Your task to perform on an android device: show emergency info Image 0: 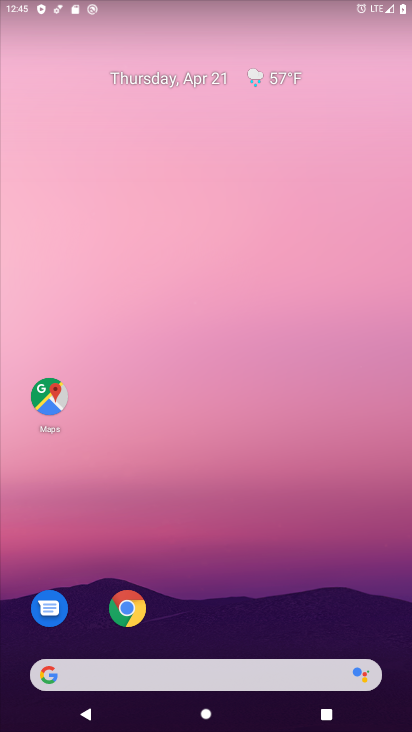
Step 0: drag from (226, 631) to (232, 211)
Your task to perform on an android device: show emergency info Image 1: 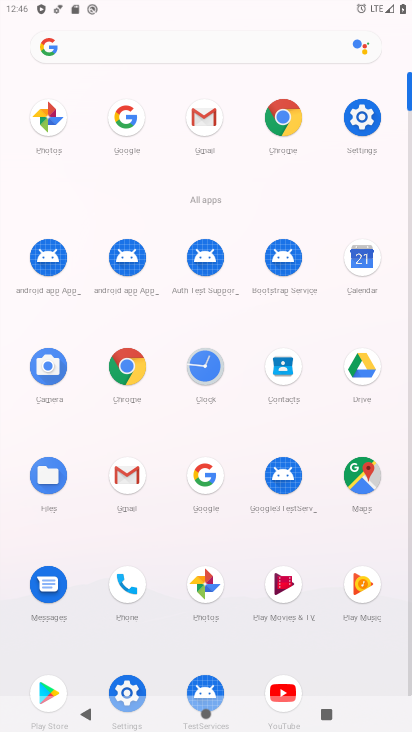
Step 1: click (367, 118)
Your task to perform on an android device: show emergency info Image 2: 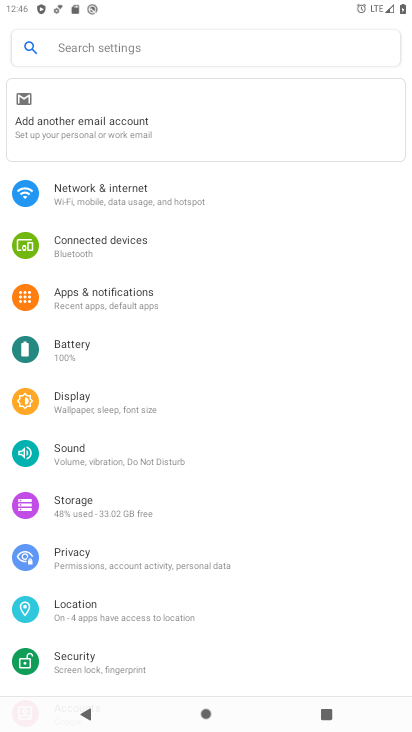
Step 2: drag from (176, 622) to (172, 156)
Your task to perform on an android device: show emergency info Image 3: 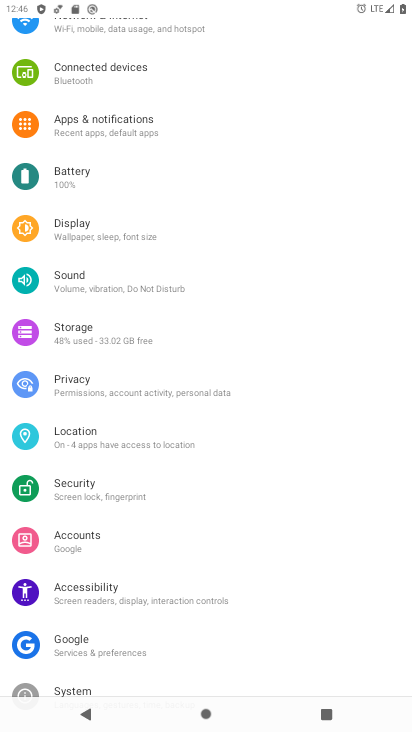
Step 3: drag from (168, 624) to (204, 122)
Your task to perform on an android device: show emergency info Image 4: 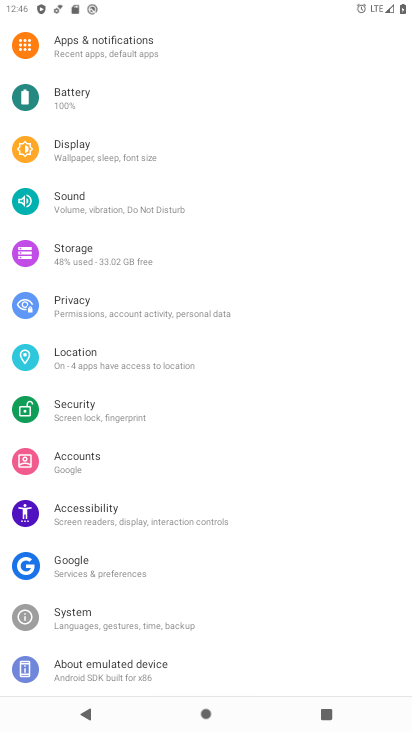
Step 4: click (155, 678)
Your task to perform on an android device: show emergency info Image 5: 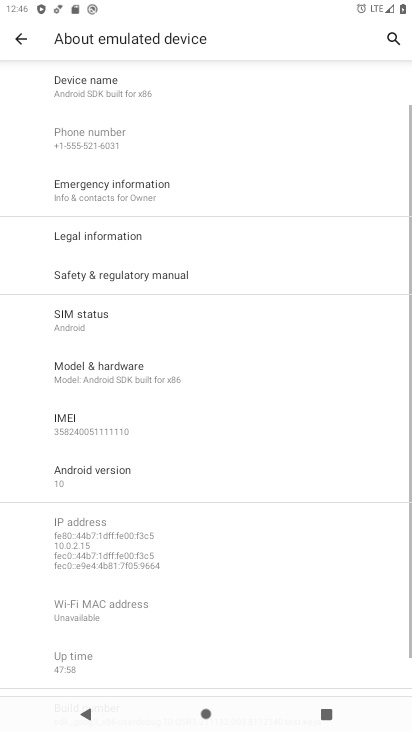
Step 5: click (171, 196)
Your task to perform on an android device: show emergency info Image 6: 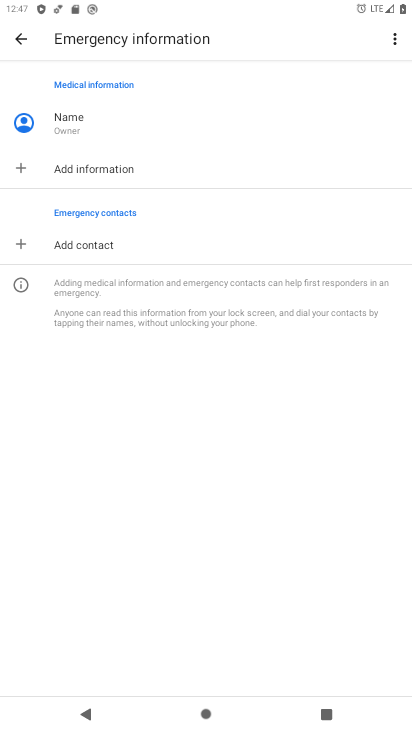
Step 6: task complete